Your task to perform on an android device: Open Chrome and go to the settings page Image 0: 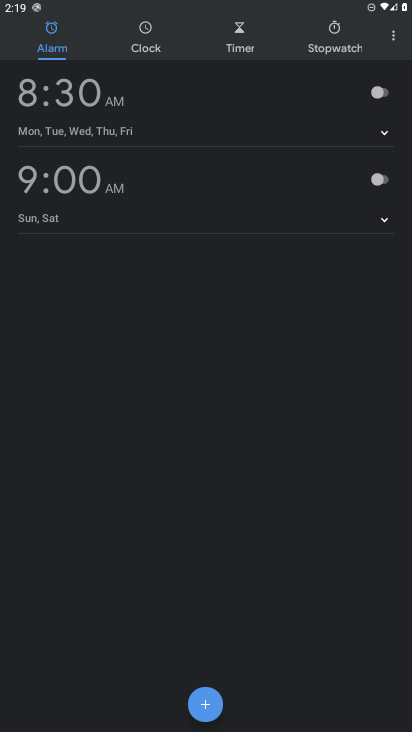
Step 0: press home button
Your task to perform on an android device: Open Chrome and go to the settings page Image 1: 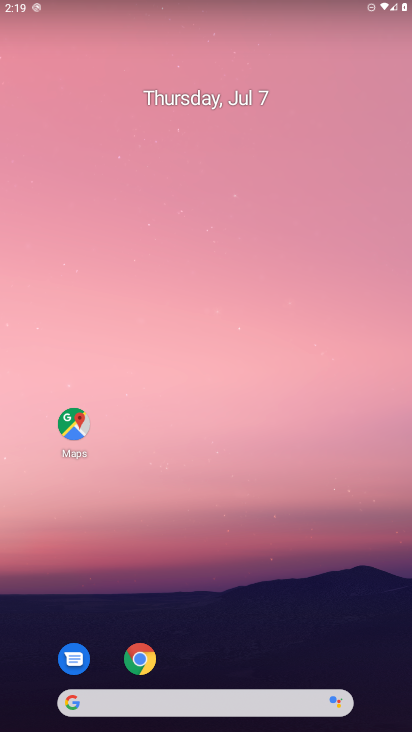
Step 1: click (143, 657)
Your task to perform on an android device: Open Chrome and go to the settings page Image 2: 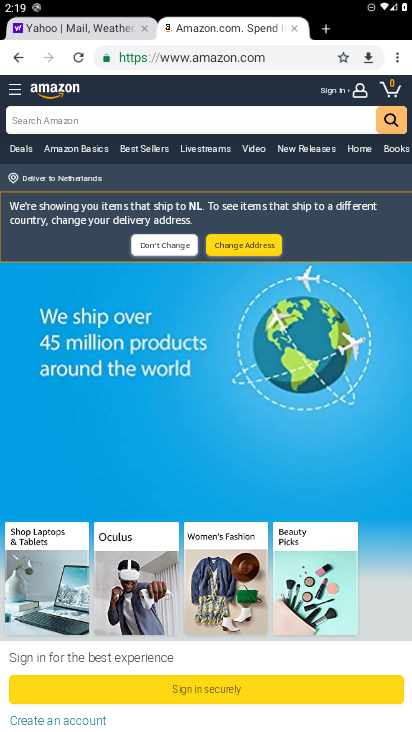
Step 2: click (393, 57)
Your task to perform on an android device: Open Chrome and go to the settings page Image 3: 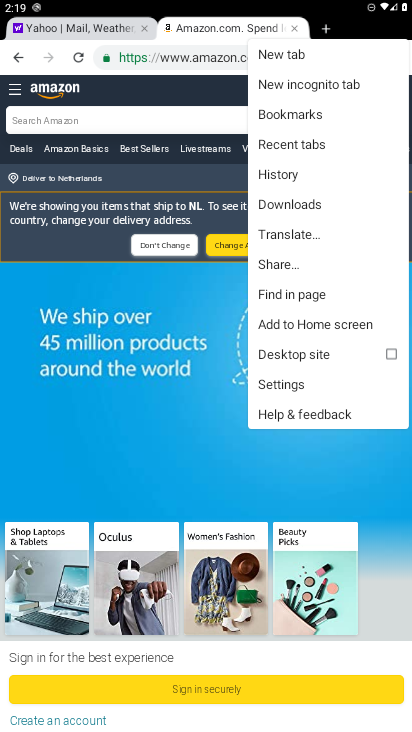
Step 3: click (301, 380)
Your task to perform on an android device: Open Chrome and go to the settings page Image 4: 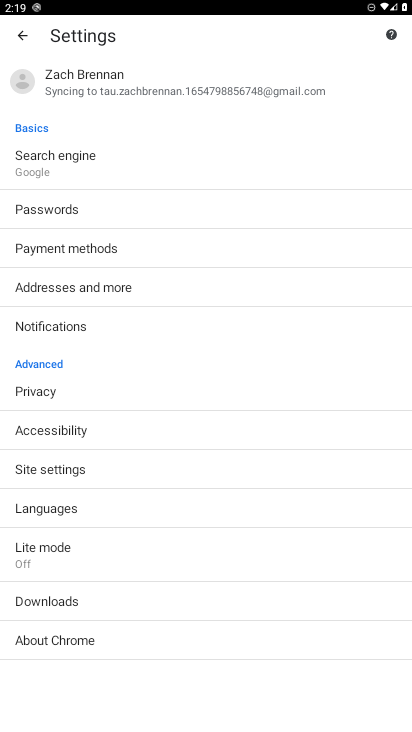
Step 4: task complete